Your task to perform on an android device: move a message to another label in the gmail app Image 0: 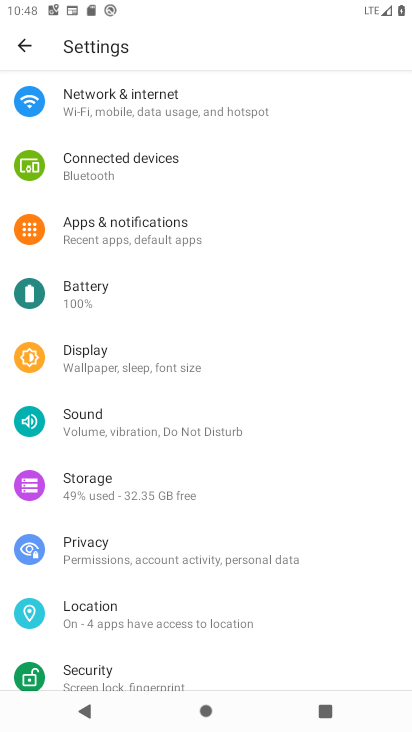
Step 0: press home button
Your task to perform on an android device: move a message to another label in the gmail app Image 1: 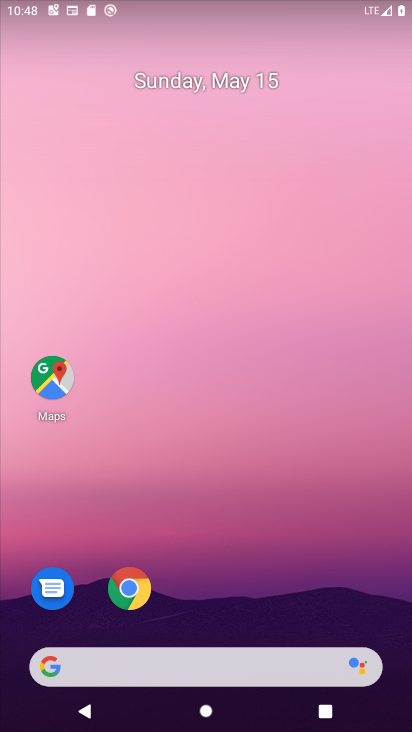
Step 1: drag from (301, 551) to (268, 8)
Your task to perform on an android device: move a message to another label in the gmail app Image 2: 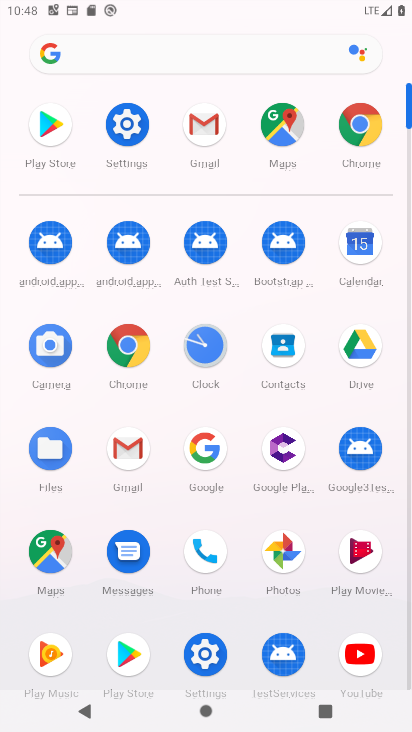
Step 2: click (123, 450)
Your task to perform on an android device: move a message to another label in the gmail app Image 3: 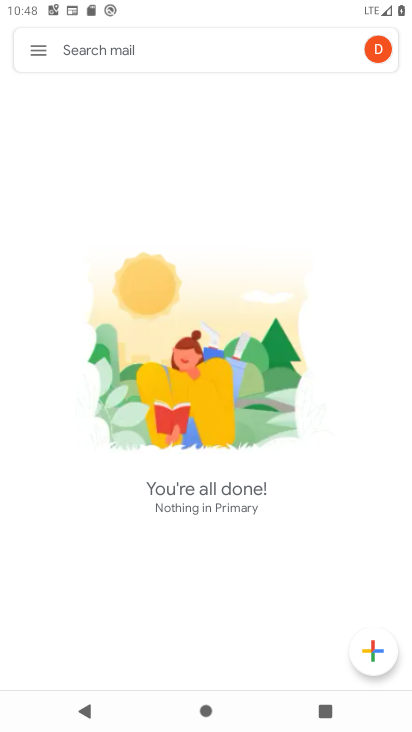
Step 3: task complete